Your task to perform on an android device: toggle javascript in the chrome app Image 0: 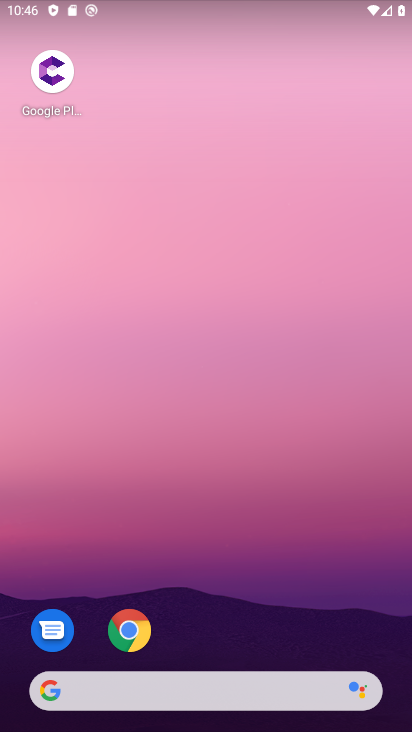
Step 0: click (119, 636)
Your task to perform on an android device: toggle javascript in the chrome app Image 1: 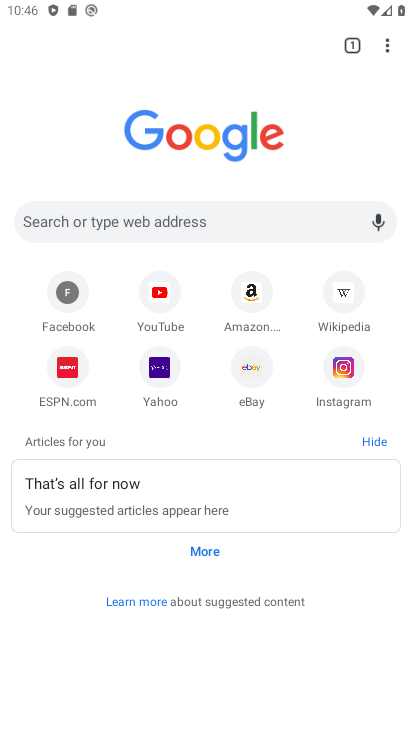
Step 1: click (390, 37)
Your task to perform on an android device: toggle javascript in the chrome app Image 2: 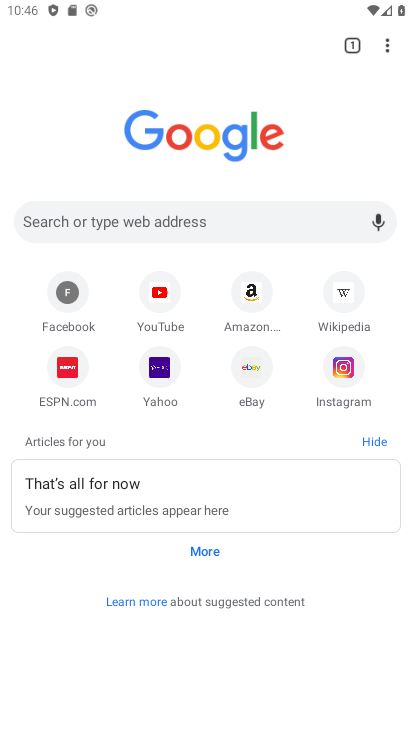
Step 2: click (390, 36)
Your task to perform on an android device: toggle javascript in the chrome app Image 3: 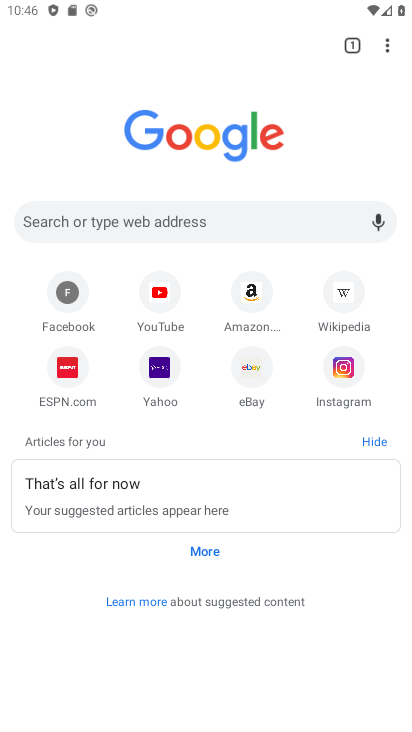
Step 3: click (383, 48)
Your task to perform on an android device: toggle javascript in the chrome app Image 4: 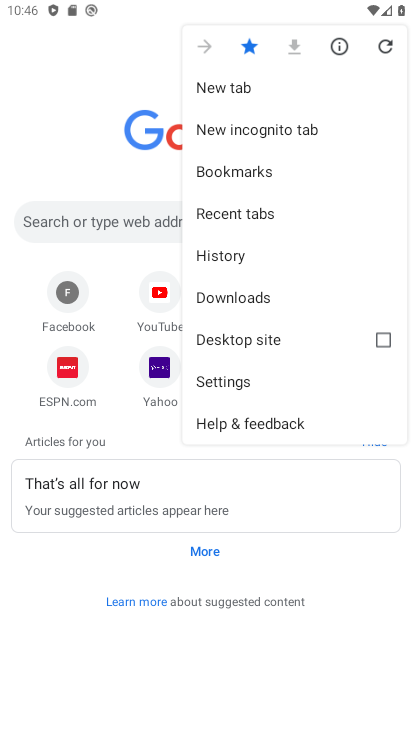
Step 4: click (227, 385)
Your task to perform on an android device: toggle javascript in the chrome app Image 5: 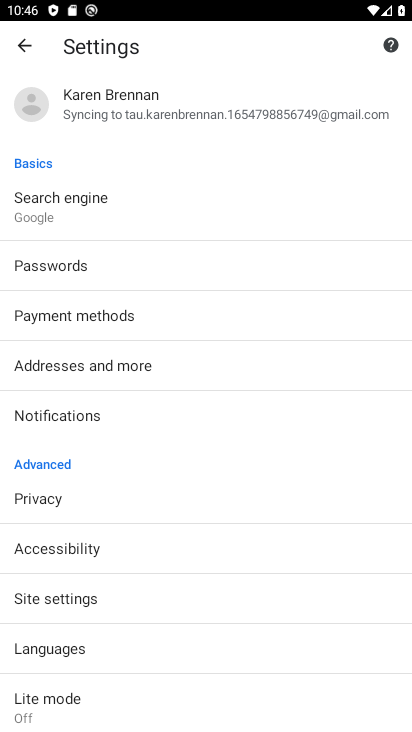
Step 5: click (49, 601)
Your task to perform on an android device: toggle javascript in the chrome app Image 6: 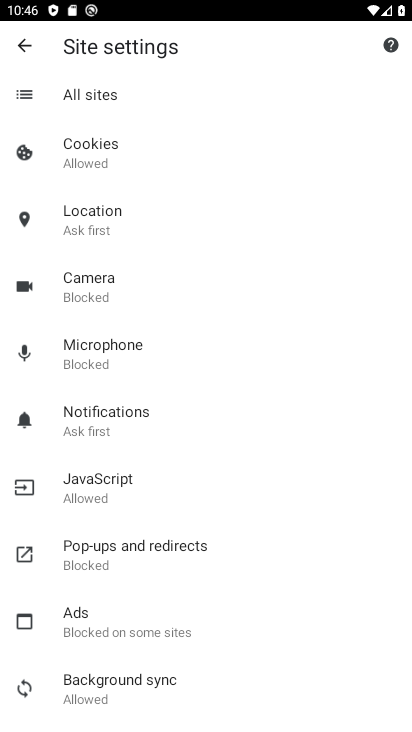
Step 6: click (87, 491)
Your task to perform on an android device: toggle javascript in the chrome app Image 7: 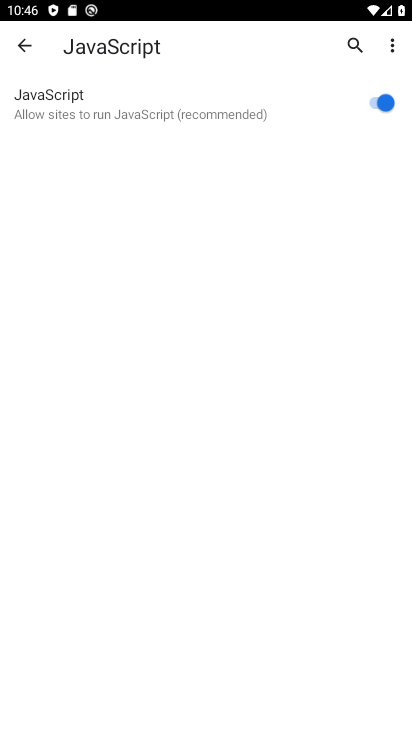
Step 7: click (375, 98)
Your task to perform on an android device: toggle javascript in the chrome app Image 8: 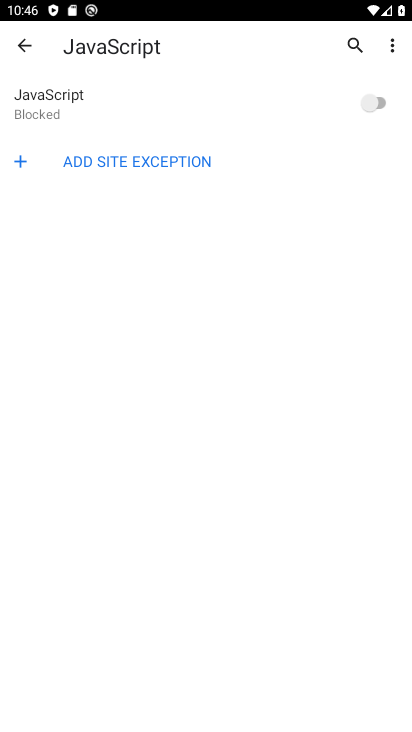
Step 8: task complete